Your task to perform on an android device: Open Google Chrome and open the bookmarks view Image 0: 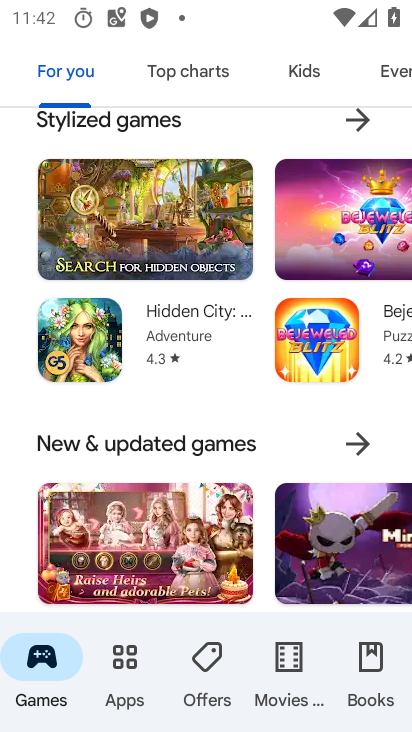
Step 0: press home button
Your task to perform on an android device: Open Google Chrome and open the bookmarks view Image 1: 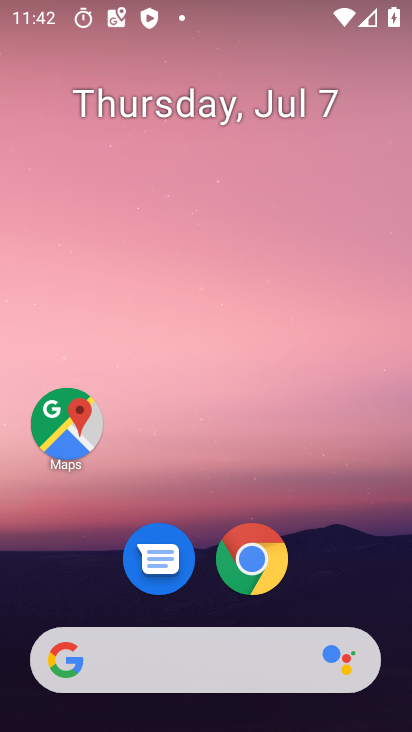
Step 1: drag from (338, 581) to (349, 155)
Your task to perform on an android device: Open Google Chrome and open the bookmarks view Image 2: 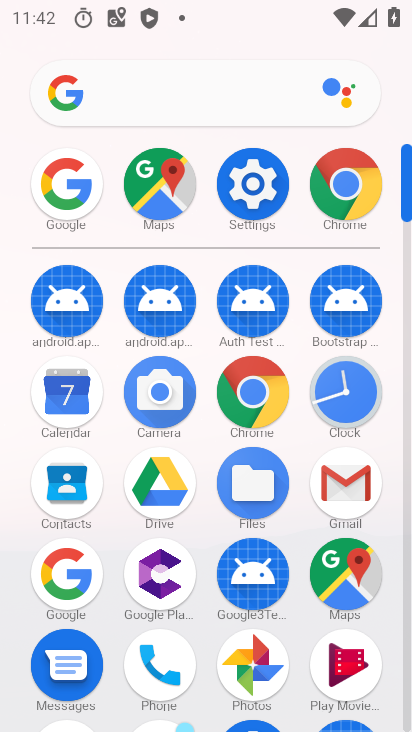
Step 2: click (252, 387)
Your task to perform on an android device: Open Google Chrome and open the bookmarks view Image 3: 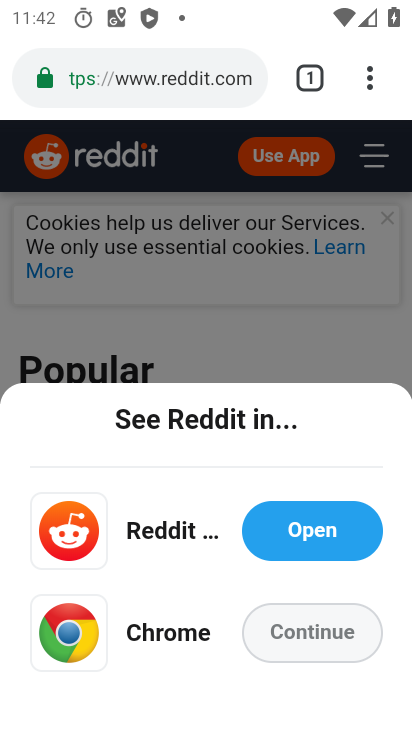
Step 3: click (373, 84)
Your task to perform on an android device: Open Google Chrome and open the bookmarks view Image 4: 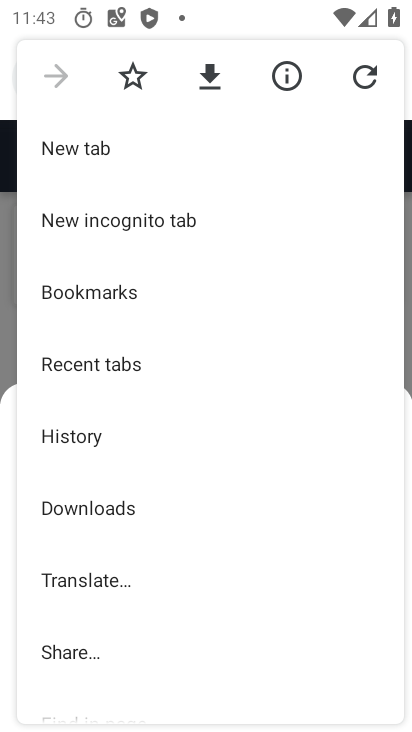
Step 4: drag from (274, 472) to (272, 313)
Your task to perform on an android device: Open Google Chrome and open the bookmarks view Image 5: 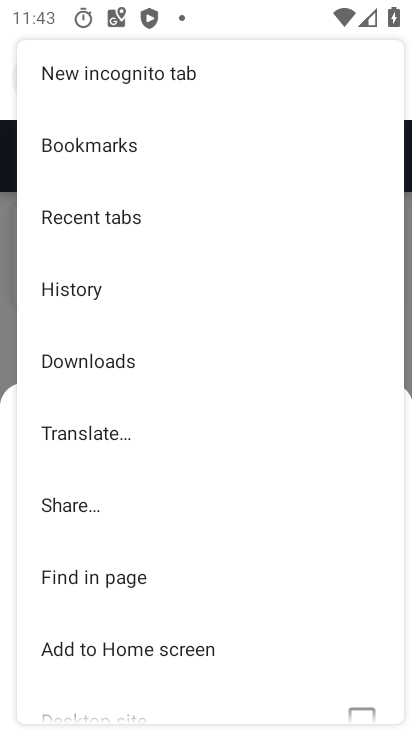
Step 5: drag from (249, 461) to (248, 308)
Your task to perform on an android device: Open Google Chrome and open the bookmarks view Image 6: 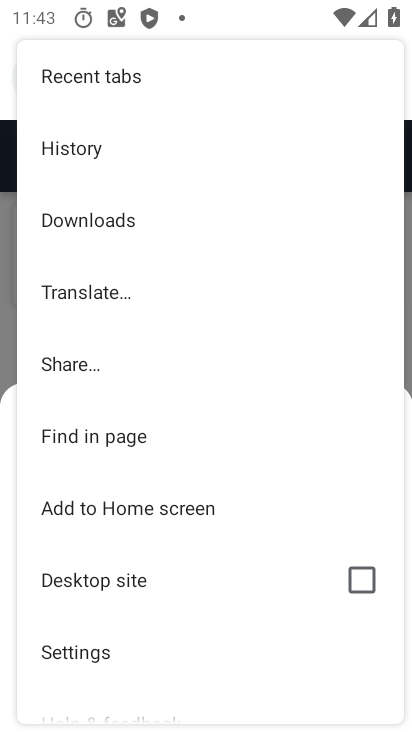
Step 6: drag from (271, 578) to (273, 380)
Your task to perform on an android device: Open Google Chrome and open the bookmarks view Image 7: 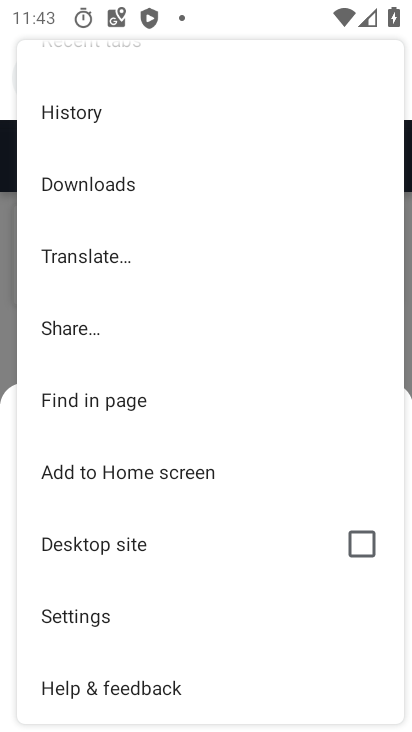
Step 7: drag from (241, 227) to (277, 404)
Your task to perform on an android device: Open Google Chrome and open the bookmarks view Image 8: 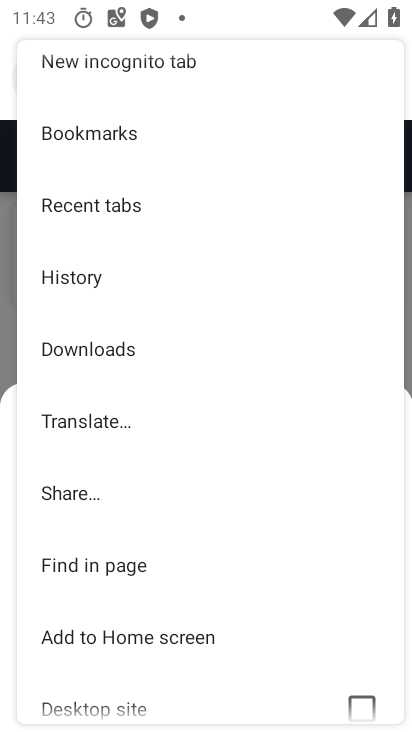
Step 8: drag from (263, 204) to (288, 391)
Your task to perform on an android device: Open Google Chrome and open the bookmarks view Image 9: 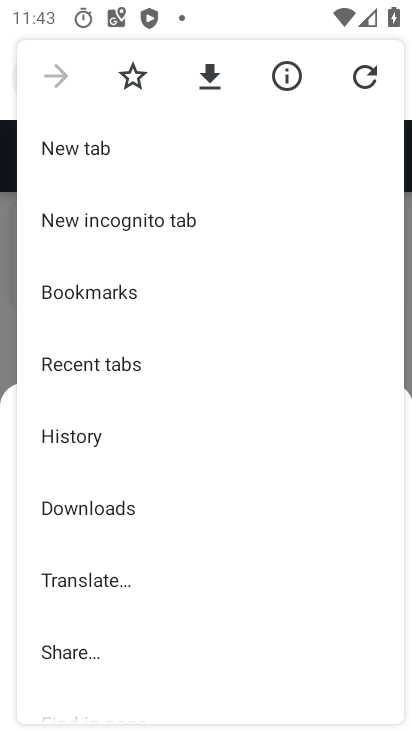
Step 9: click (152, 299)
Your task to perform on an android device: Open Google Chrome and open the bookmarks view Image 10: 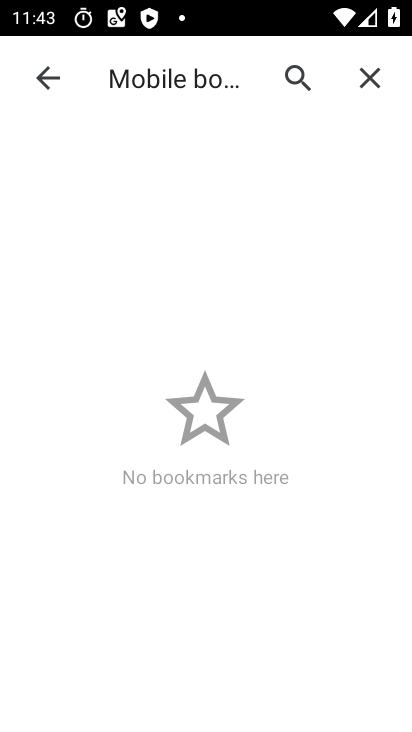
Step 10: task complete